Your task to perform on an android device: allow cookies in the chrome app Image 0: 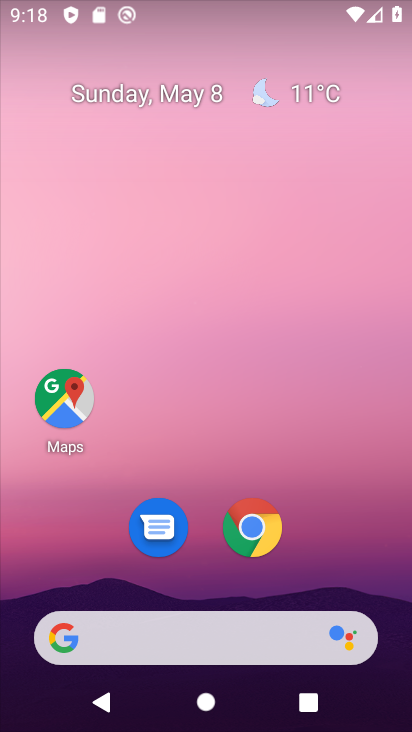
Step 0: click (250, 519)
Your task to perform on an android device: allow cookies in the chrome app Image 1: 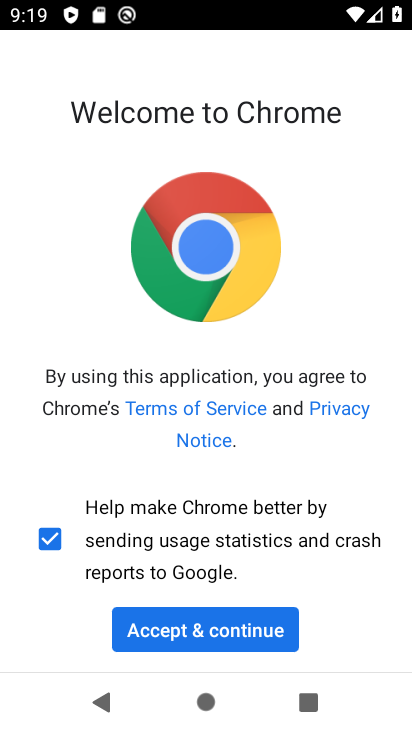
Step 1: click (190, 634)
Your task to perform on an android device: allow cookies in the chrome app Image 2: 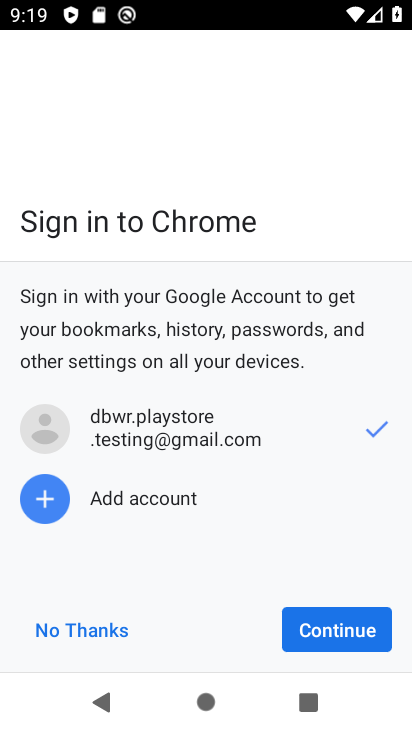
Step 2: click (348, 646)
Your task to perform on an android device: allow cookies in the chrome app Image 3: 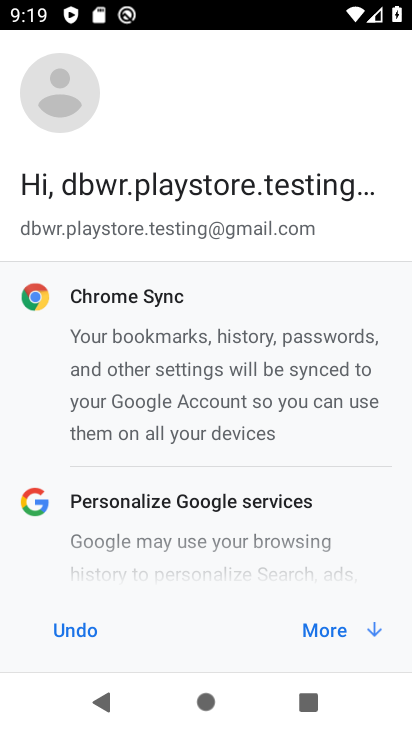
Step 3: click (351, 632)
Your task to perform on an android device: allow cookies in the chrome app Image 4: 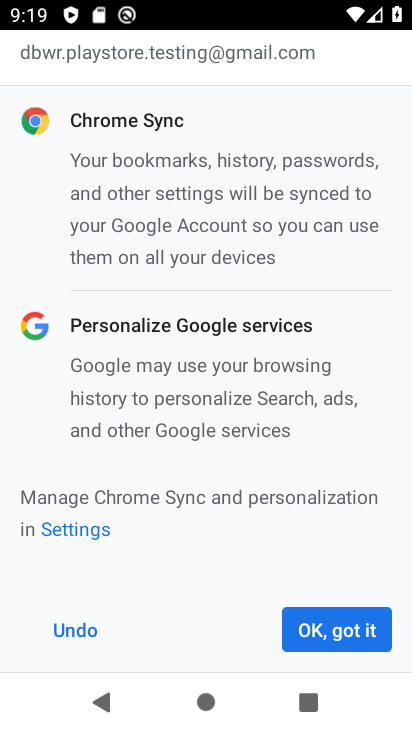
Step 4: click (351, 632)
Your task to perform on an android device: allow cookies in the chrome app Image 5: 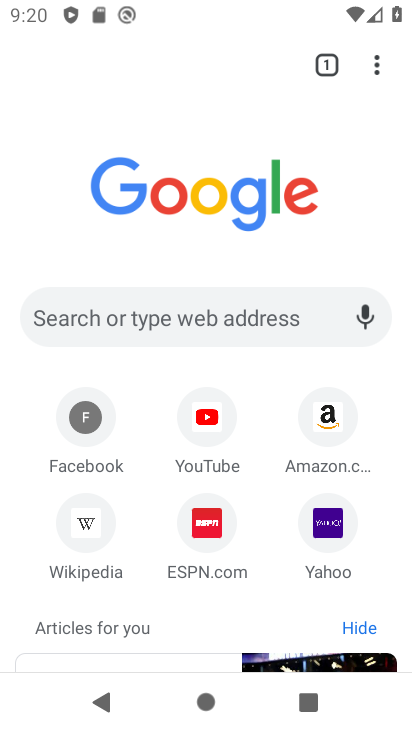
Step 5: click (382, 61)
Your task to perform on an android device: allow cookies in the chrome app Image 6: 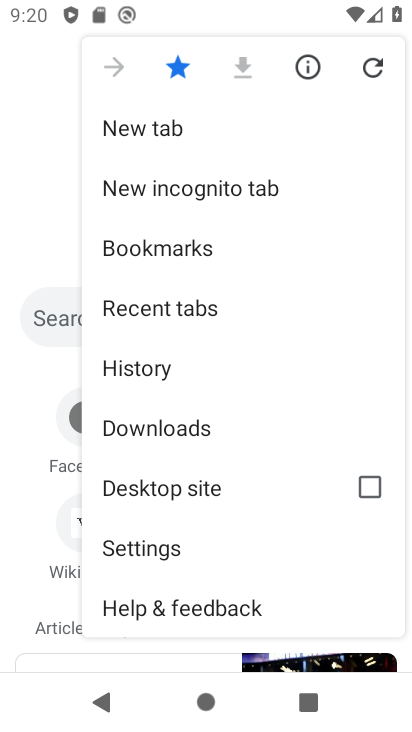
Step 6: click (140, 550)
Your task to perform on an android device: allow cookies in the chrome app Image 7: 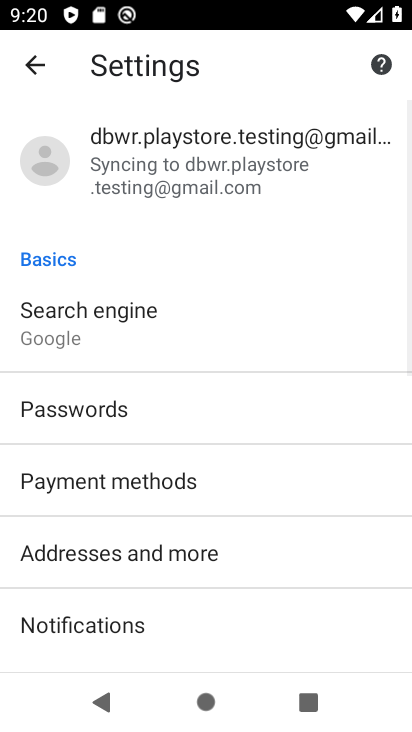
Step 7: drag from (231, 544) to (216, 165)
Your task to perform on an android device: allow cookies in the chrome app Image 8: 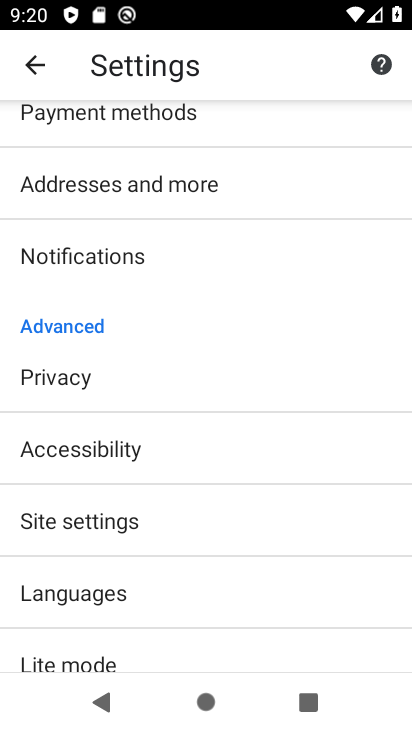
Step 8: click (149, 520)
Your task to perform on an android device: allow cookies in the chrome app Image 9: 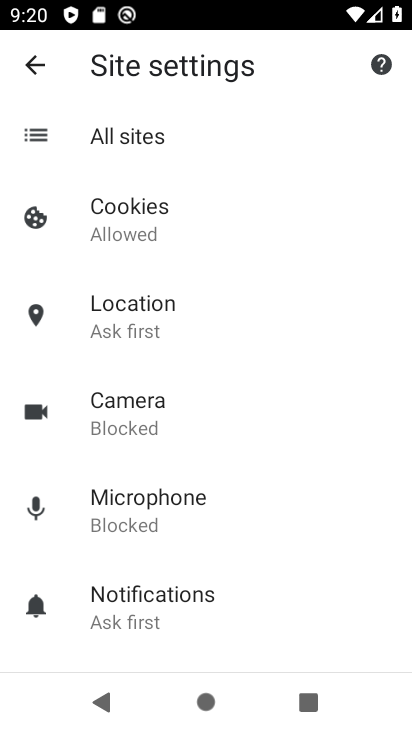
Step 9: click (150, 232)
Your task to perform on an android device: allow cookies in the chrome app Image 10: 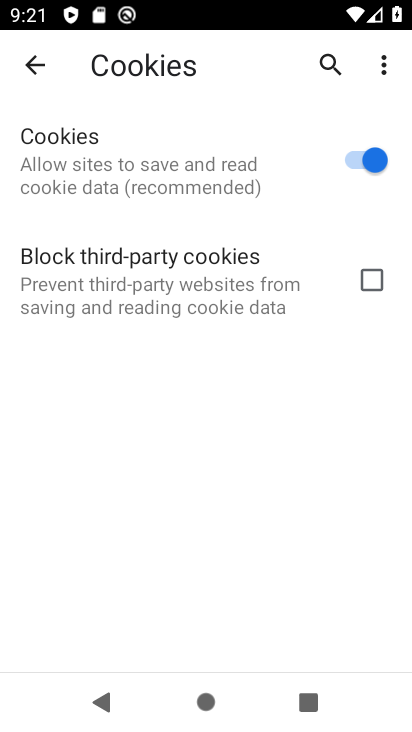
Step 10: task complete